Your task to perform on an android device: Search for vegetarian restaurants on Maps Image 0: 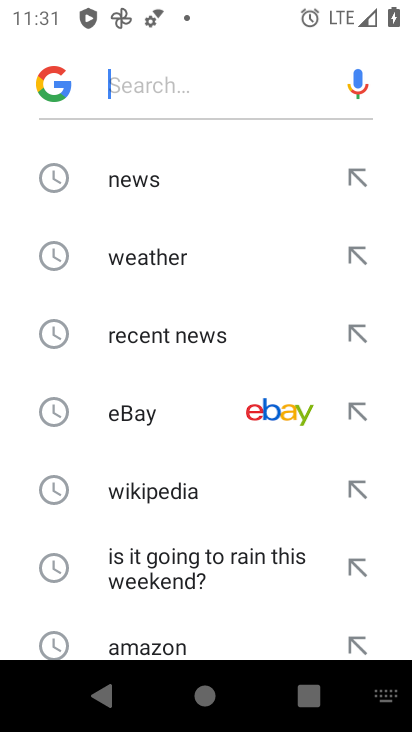
Step 0: press home button
Your task to perform on an android device: Search for vegetarian restaurants on Maps Image 1: 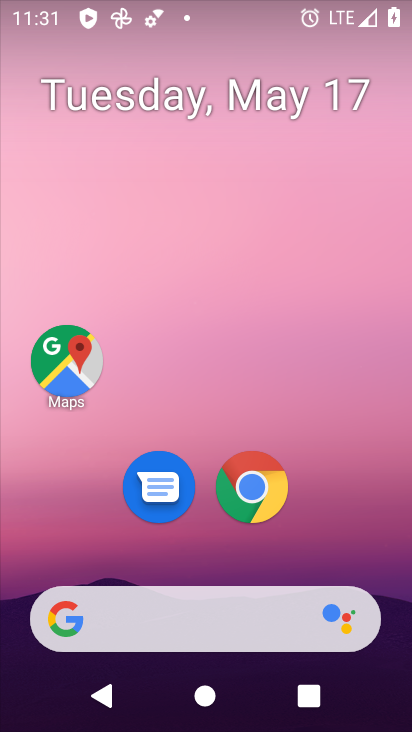
Step 1: click (235, 488)
Your task to perform on an android device: Search for vegetarian restaurants on Maps Image 2: 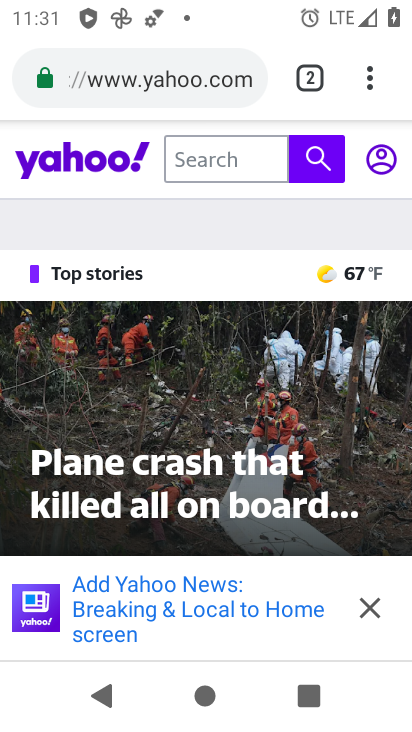
Step 2: press home button
Your task to perform on an android device: Search for vegetarian restaurants on Maps Image 3: 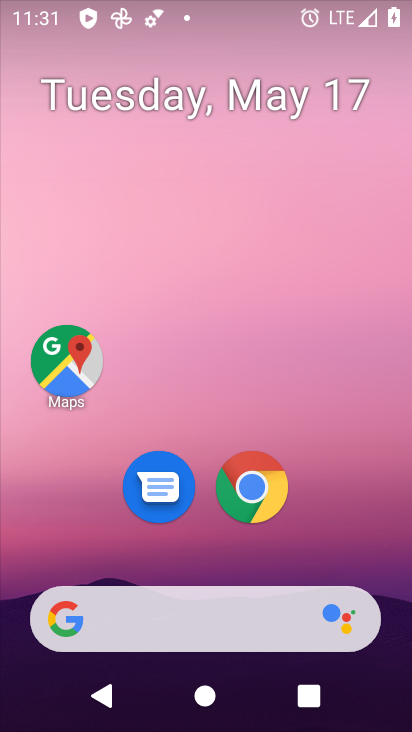
Step 3: click (37, 355)
Your task to perform on an android device: Search for vegetarian restaurants on Maps Image 4: 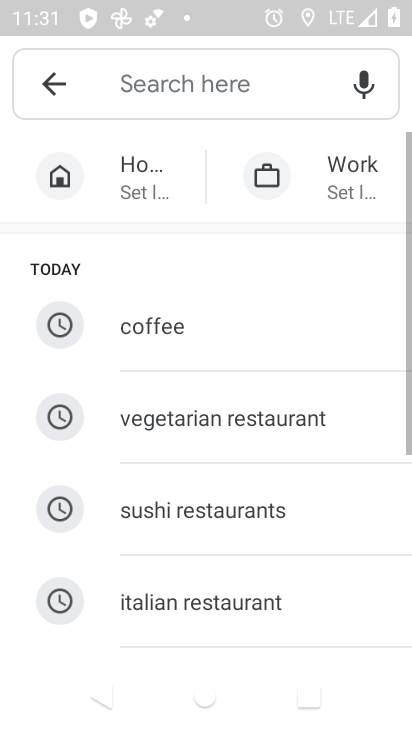
Step 4: click (249, 65)
Your task to perform on an android device: Search for vegetarian restaurants on Maps Image 5: 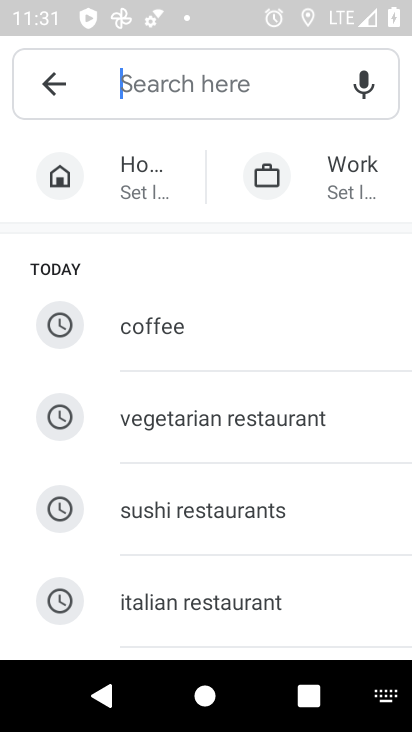
Step 5: type "vegetarian restaurants"
Your task to perform on an android device: Search for vegetarian restaurants on Maps Image 6: 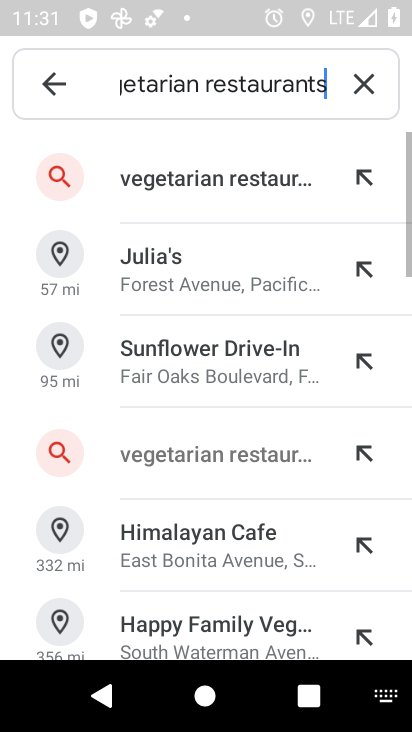
Step 6: click (212, 171)
Your task to perform on an android device: Search for vegetarian restaurants on Maps Image 7: 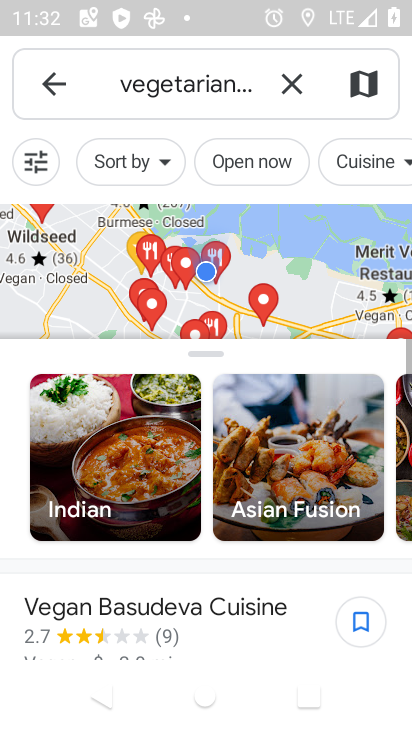
Step 7: task complete